Your task to perform on an android device: open the mobile data screen to see how much data has been used Image 0: 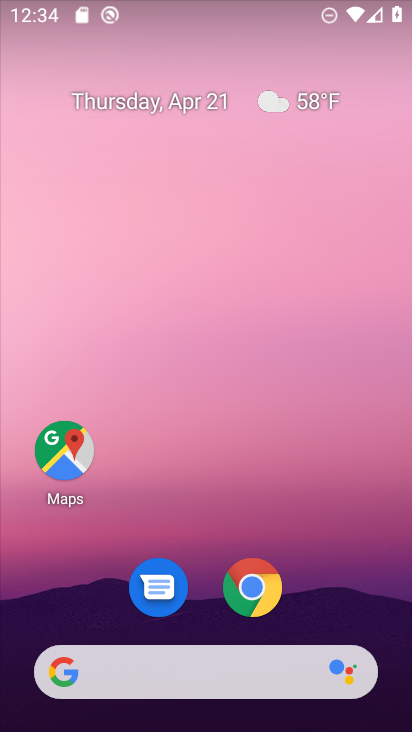
Step 0: drag from (190, 462) to (275, 13)
Your task to perform on an android device: open the mobile data screen to see how much data has been used Image 1: 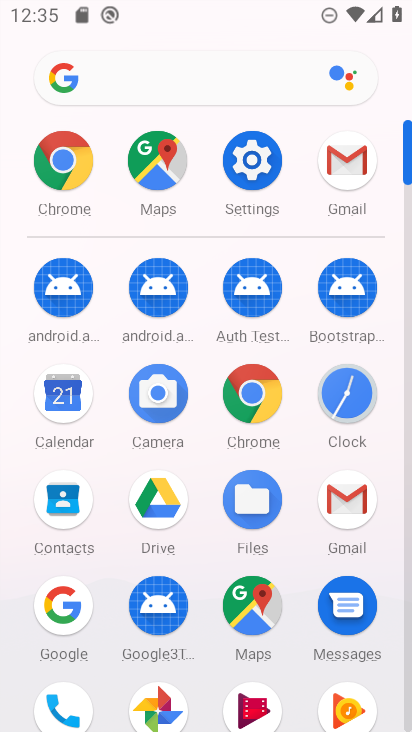
Step 1: click (252, 170)
Your task to perform on an android device: open the mobile data screen to see how much data has been used Image 2: 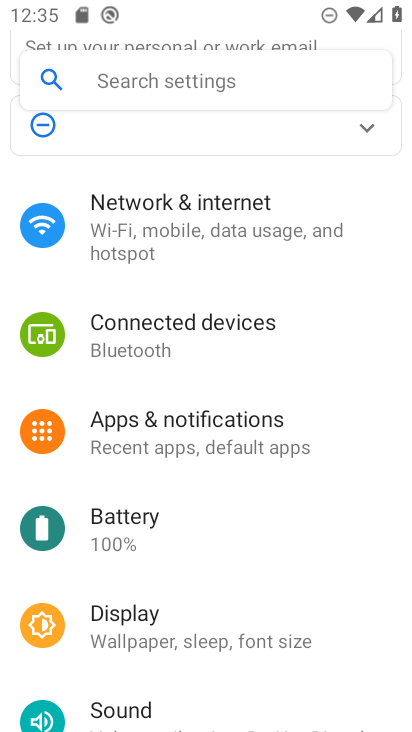
Step 2: click (186, 256)
Your task to perform on an android device: open the mobile data screen to see how much data has been used Image 3: 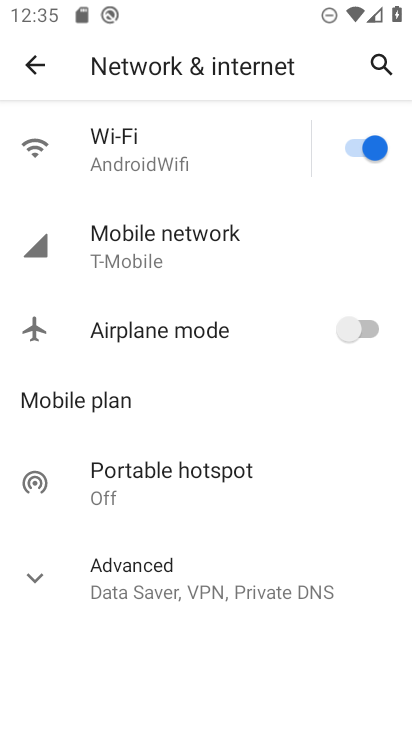
Step 3: click (182, 258)
Your task to perform on an android device: open the mobile data screen to see how much data has been used Image 4: 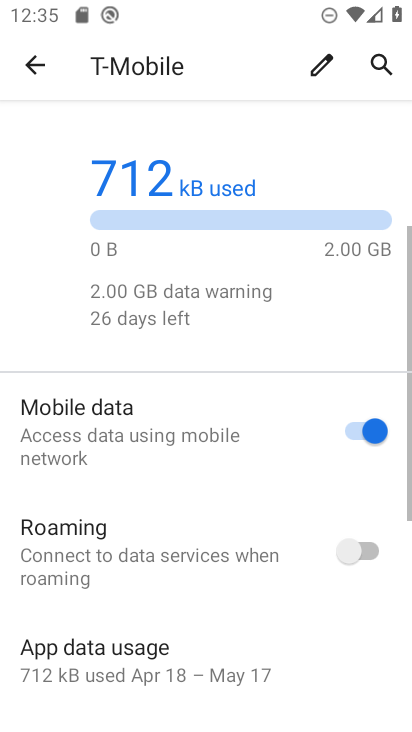
Step 4: drag from (135, 378) to (171, 252)
Your task to perform on an android device: open the mobile data screen to see how much data has been used Image 5: 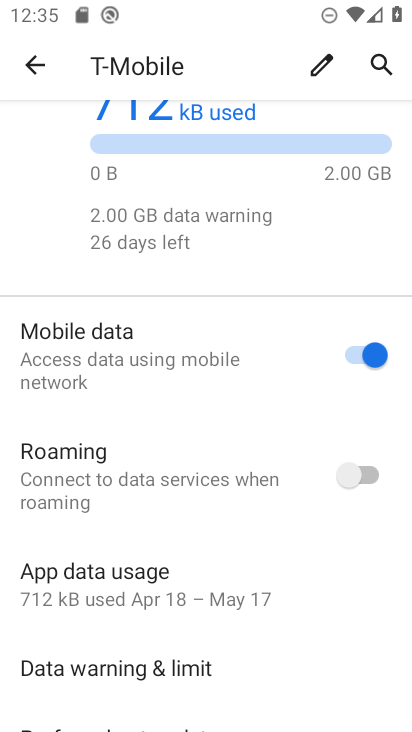
Step 5: click (117, 605)
Your task to perform on an android device: open the mobile data screen to see how much data has been used Image 6: 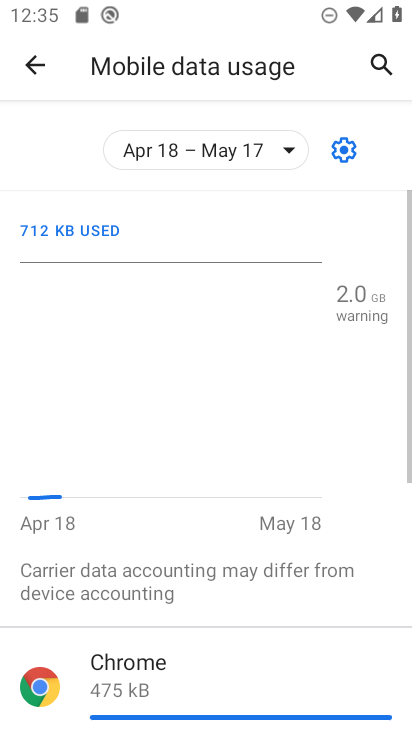
Step 6: task complete